Your task to perform on an android device: What's the weather today? Image 0: 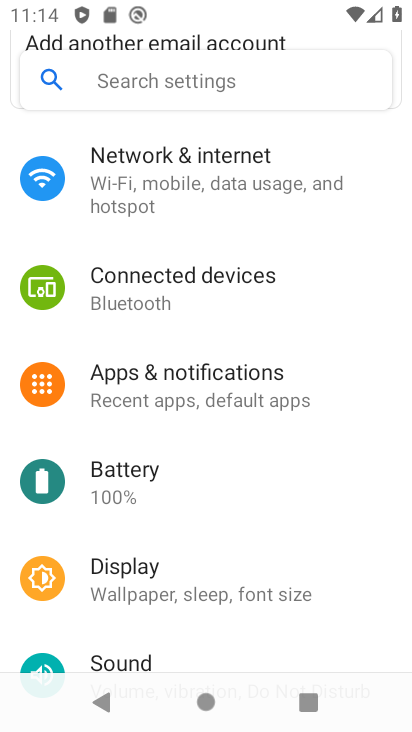
Step 0: press home button
Your task to perform on an android device: What's the weather today? Image 1: 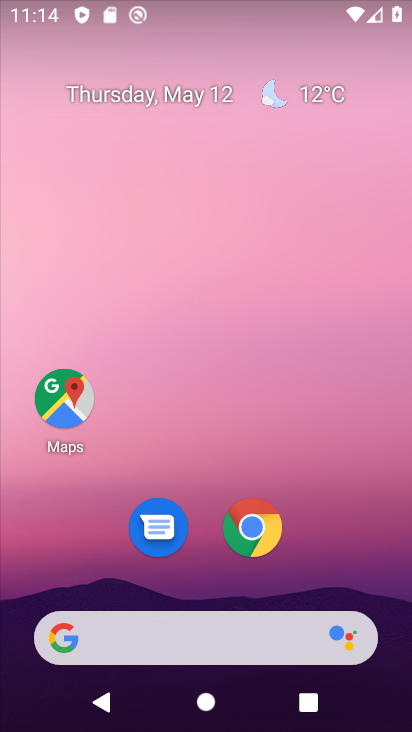
Step 1: click (205, 628)
Your task to perform on an android device: What's the weather today? Image 2: 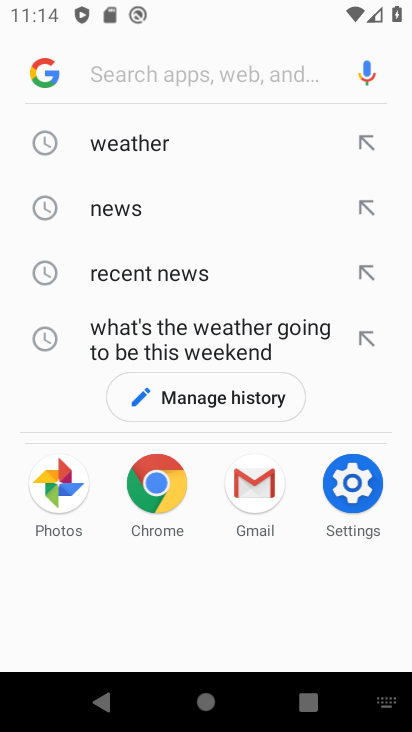
Step 2: click (136, 144)
Your task to perform on an android device: What's the weather today? Image 3: 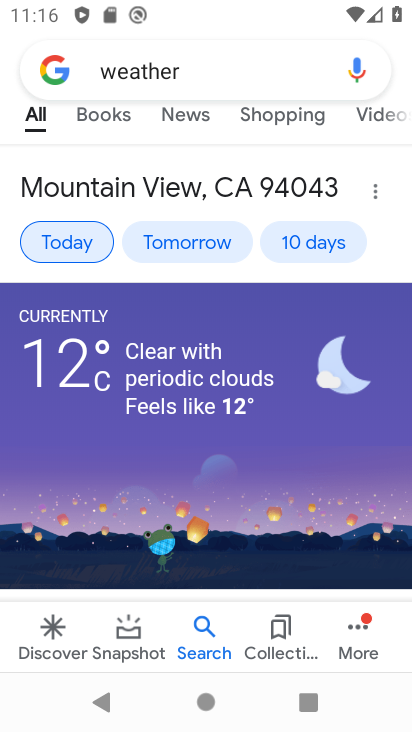
Step 3: task complete